Your task to perform on an android device: Go to sound settings Image 0: 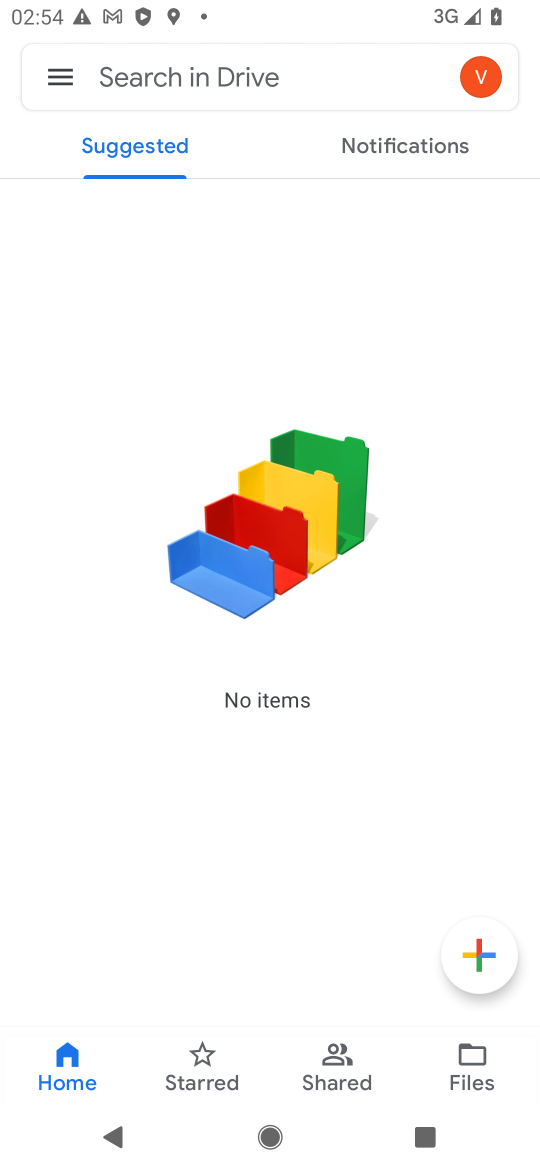
Step 0: press home button
Your task to perform on an android device: Go to sound settings Image 1: 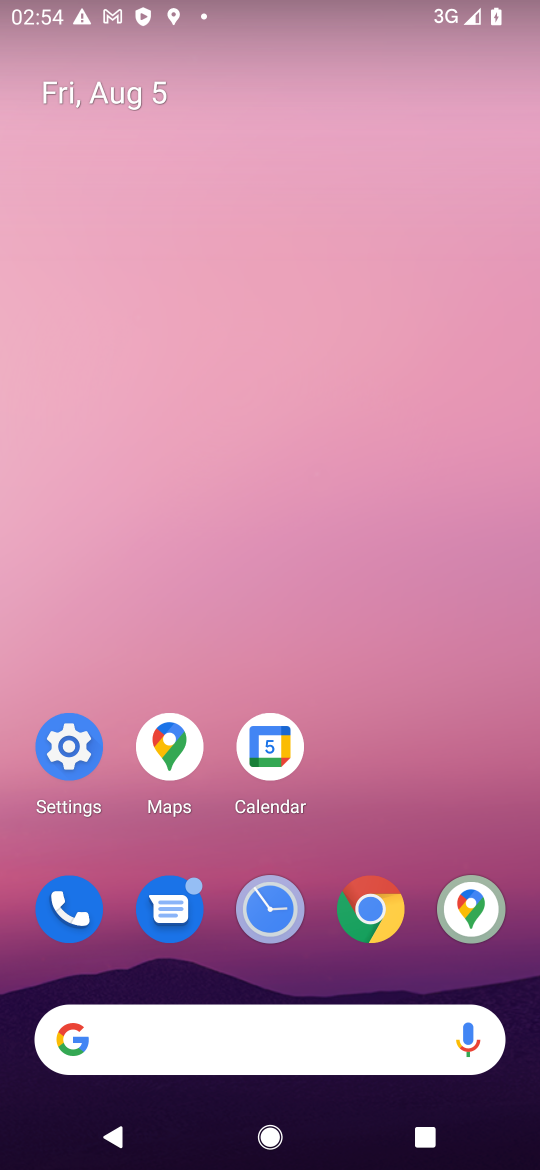
Step 1: click (59, 743)
Your task to perform on an android device: Go to sound settings Image 2: 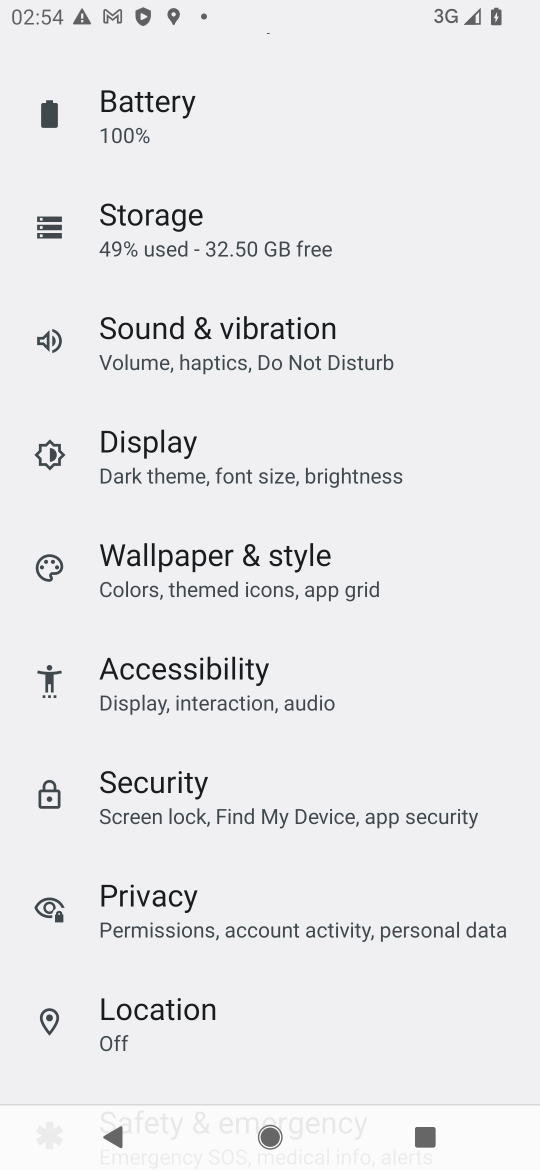
Step 2: drag from (332, 1011) to (272, 339)
Your task to perform on an android device: Go to sound settings Image 3: 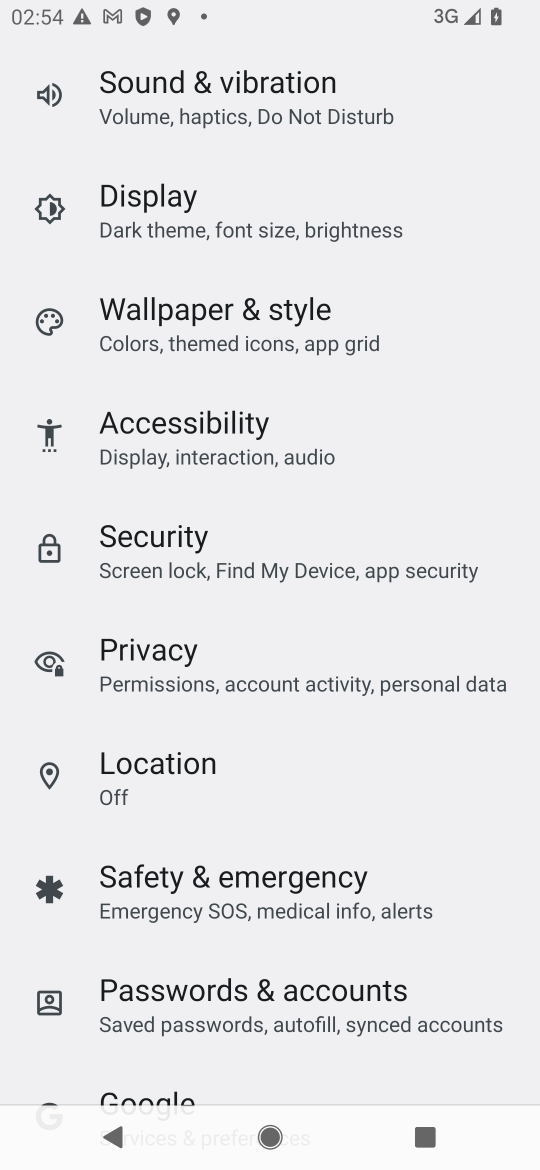
Step 3: click (155, 83)
Your task to perform on an android device: Go to sound settings Image 4: 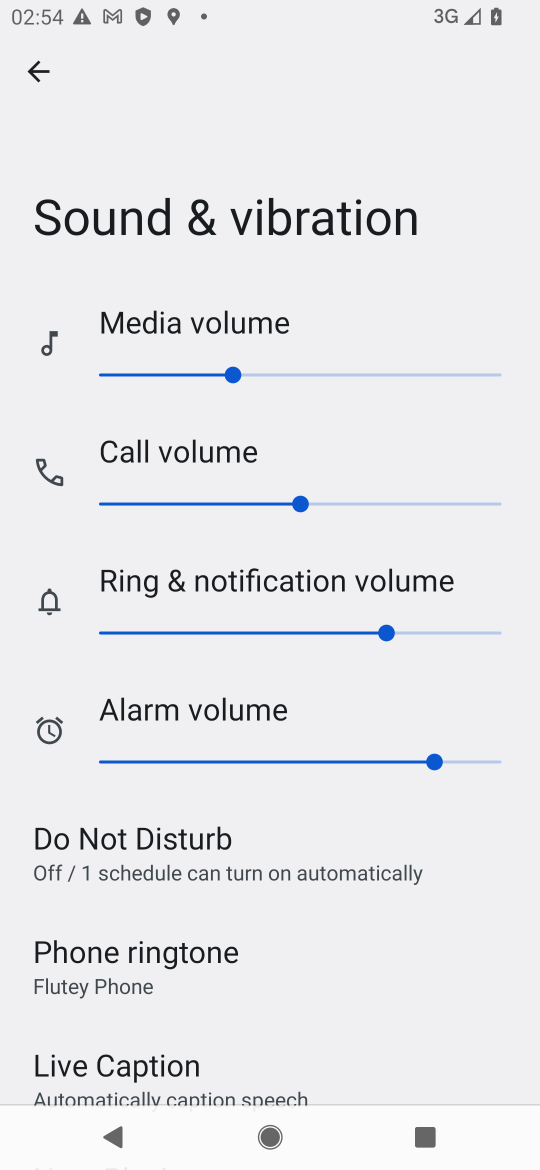
Step 4: task complete